Your task to perform on an android device: change alarm snooze length Image 0: 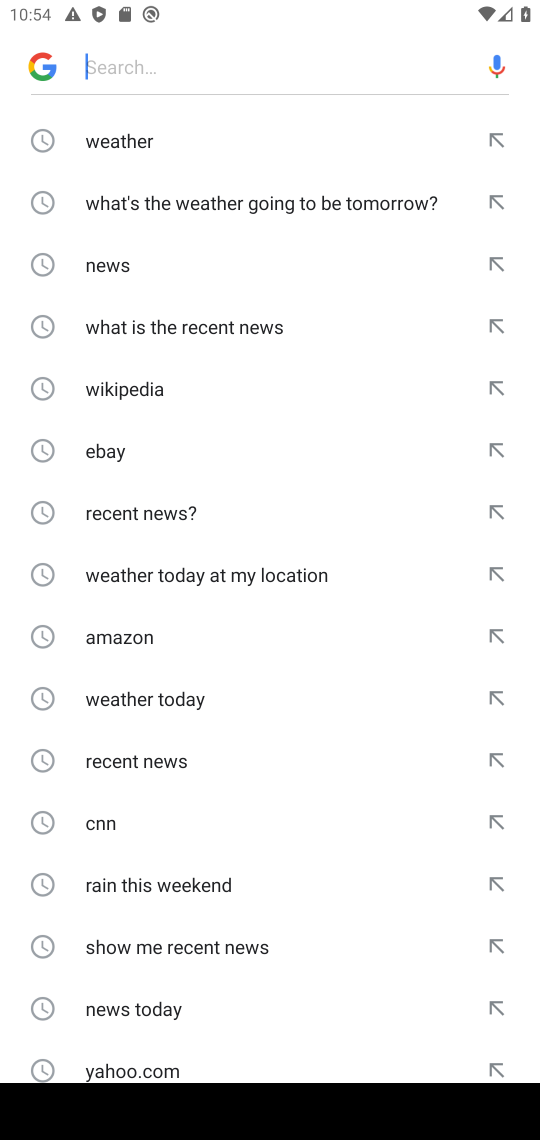
Step 0: press home button
Your task to perform on an android device: change alarm snooze length Image 1: 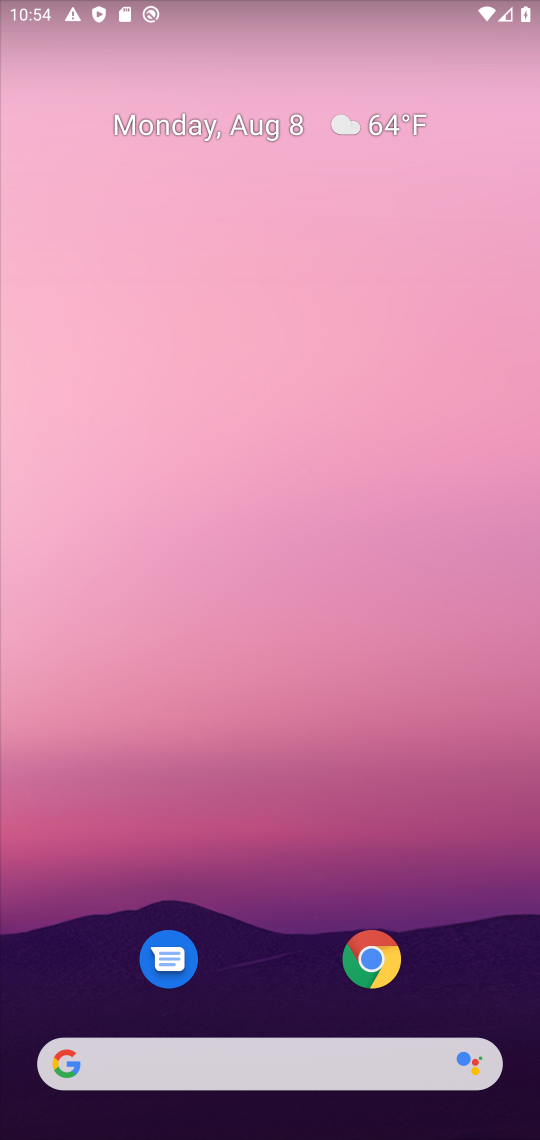
Step 1: drag from (499, 968) to (412, 389)
Your task to perform on an android device: change alarm snooze length Image 2: 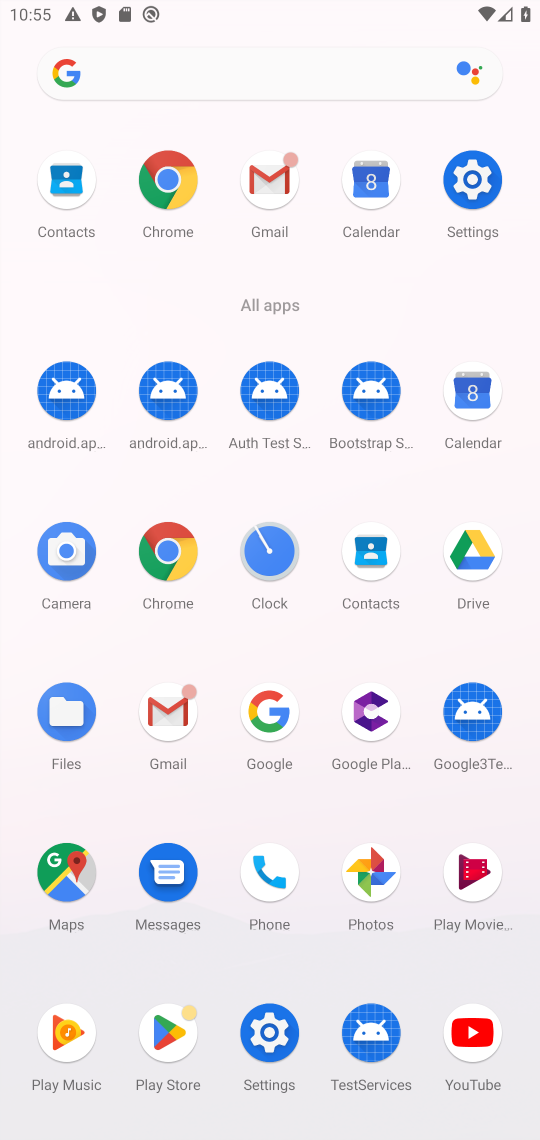
Step 2: click (272, 555)
Your task to perform on an android device: change alarm snooze length Image 3: 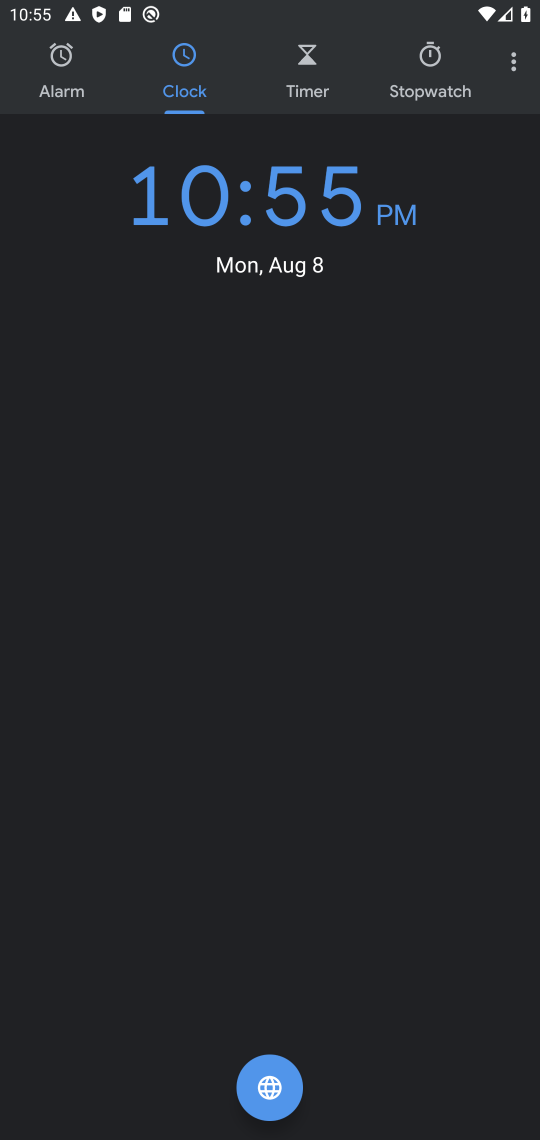
Step 3: click (526, 66)
Your task to perform on an android device: change alarm snooze length Image 4: 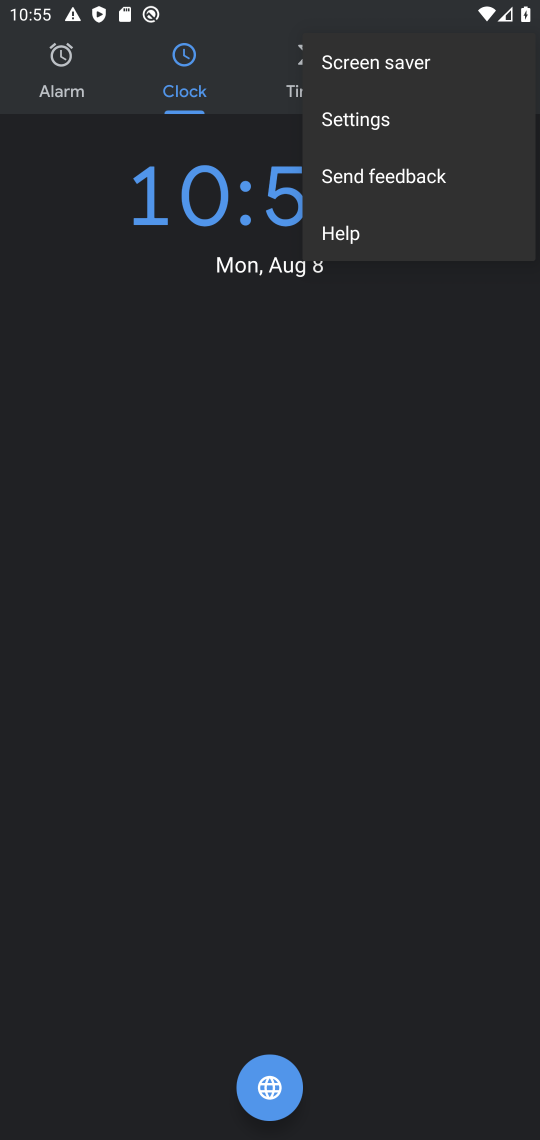
Step 4: click (467, 131)
Your task to perform on an android device: change alarm snooze length Image 5: 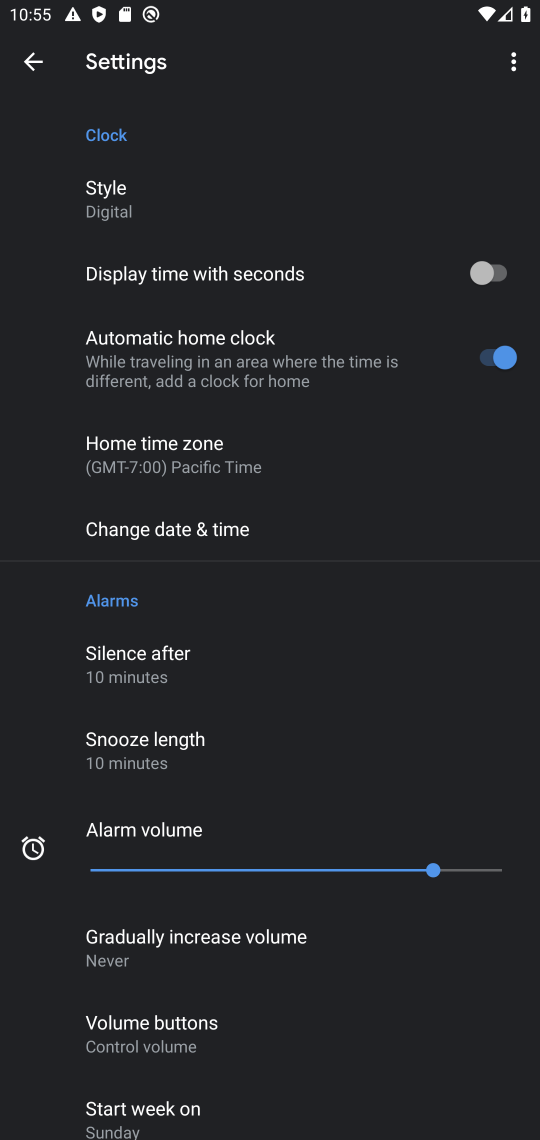
Step 5: click (247, 756)
Your task to perform on an android device: change alarm snooze length Image 6: 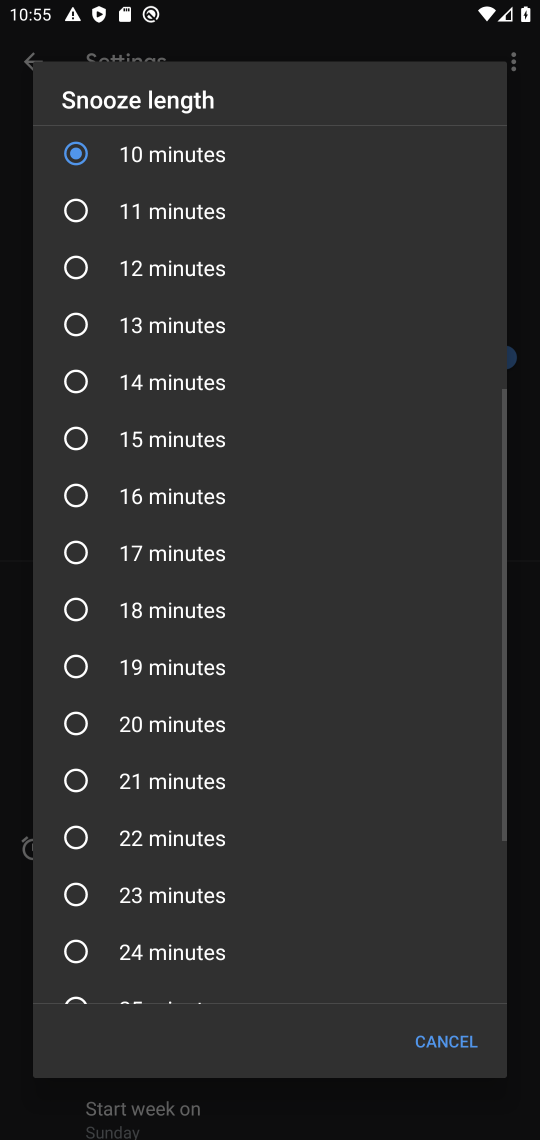
Step 6: click (198, 755)
Your task to perform on an android device: change alarm snooze length Image 7: 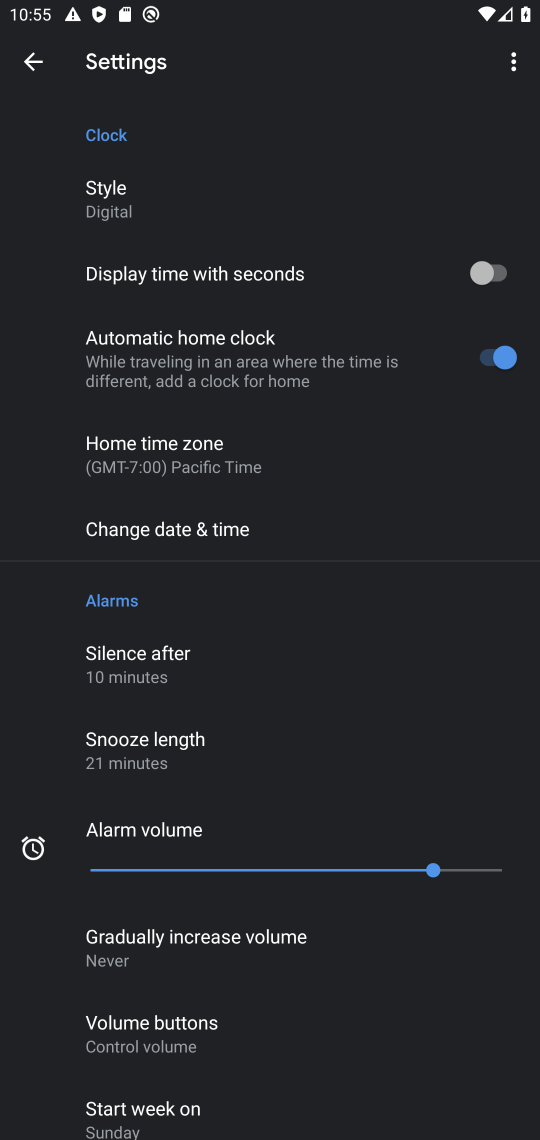
Step 7: task complete